Your task to perform on an android device: Open Chrome and go to settings Image 0: 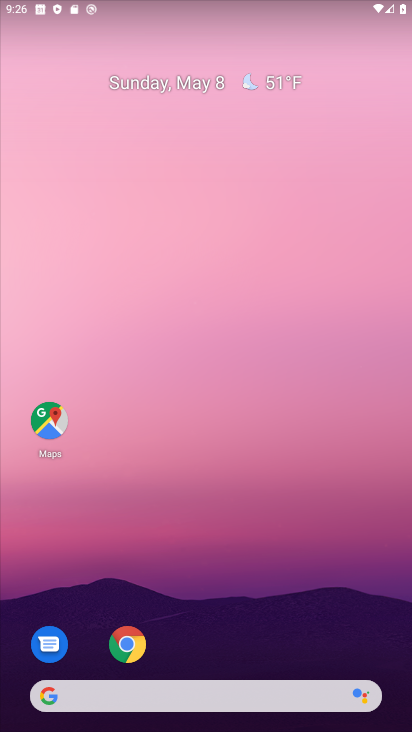
Step 0: drag from (238, 468) to (298, 192)
Your task to perform on an android device: Open Chrome and go to settings Image 1: 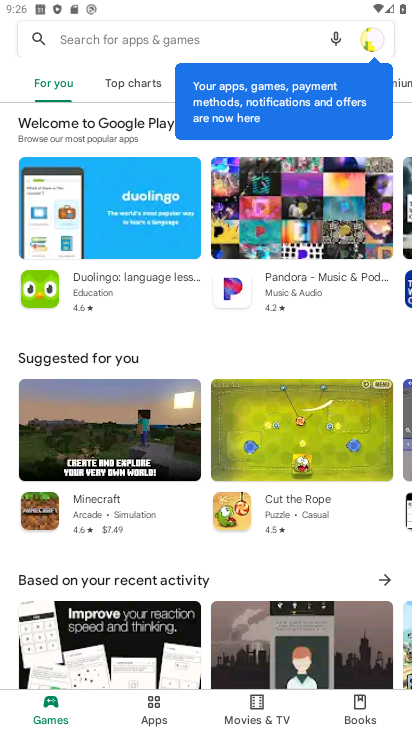
Step 1: press home button
Your task to perform on an android device: Open Chrome and go to settings Image 2: 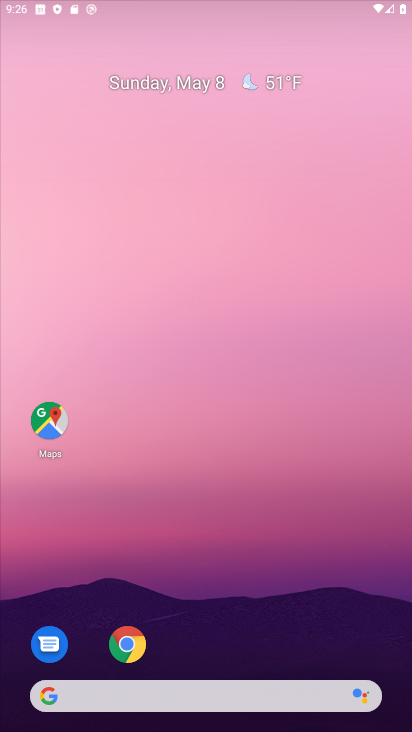
Step 2: drag from (209, 681) to (262, 148)
Your task to perform on an android device: Open Chrome and go to settings Image 3: 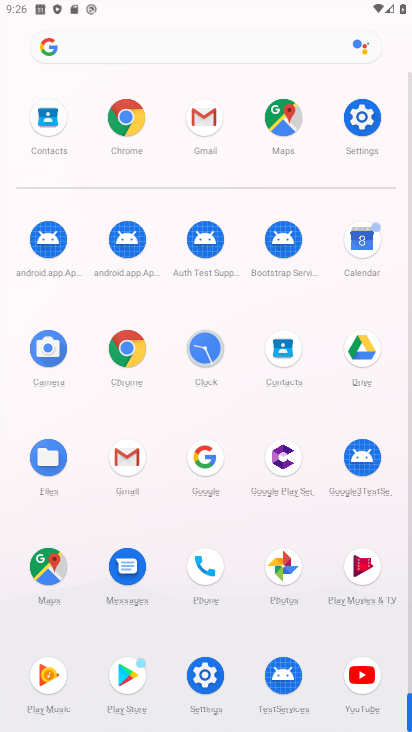
Step 3: click (203, 678)
Your task to perform on an android device: Open Chrome and go to settings Image 4: 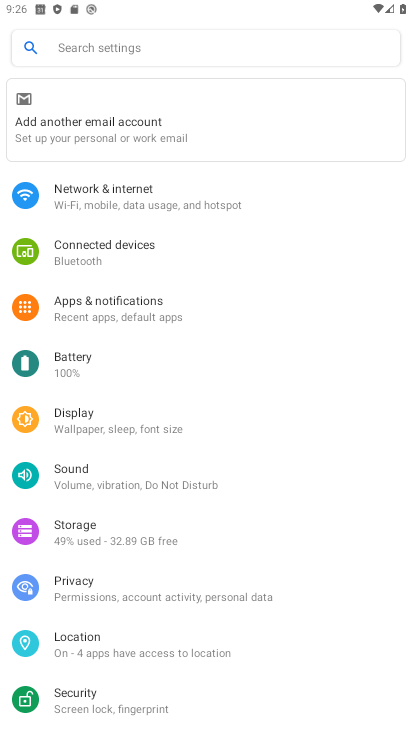
Step 4: press back button
Your task to perform on an android device: Open Chrome and go to settings Image 5: 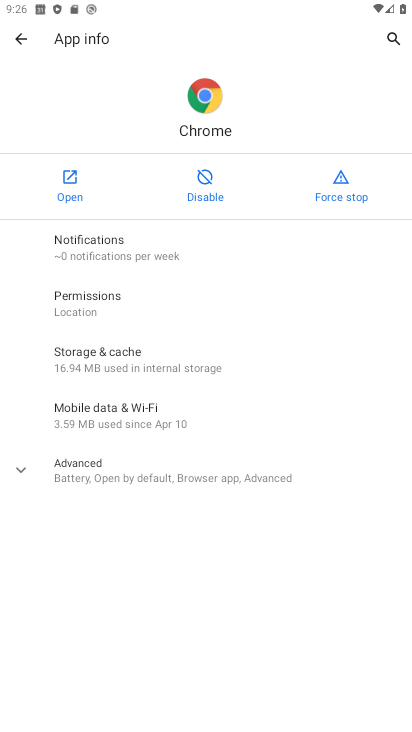
Step 5: click (75, 185)
Your task to perform on an android device: Open Chrome and go to settings Image 6: 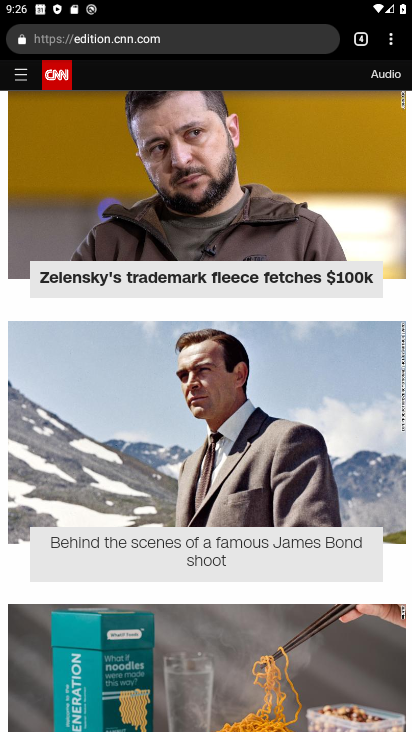
Step 6: task complete